Your task to perform on an android device: Find coffee shops on Maps Image 0: 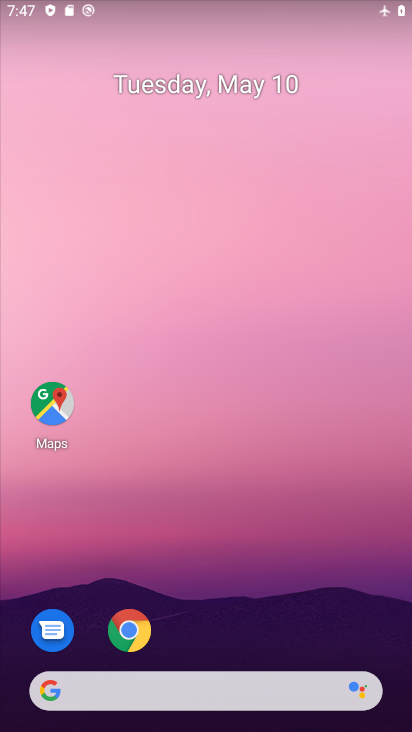
Step 0: click (50, 413)
Your task to perform on an android device: Find coffee shops on Maps Image 1: 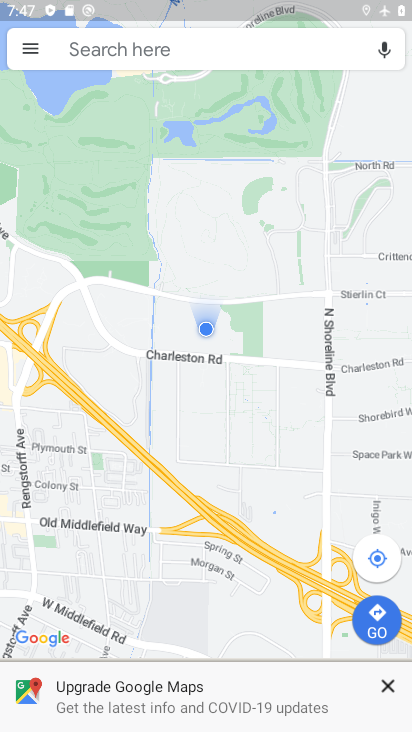
Step 1: click (112, 46)
Your task to perform on an android device: Find coffee shops on Maps Image 2: 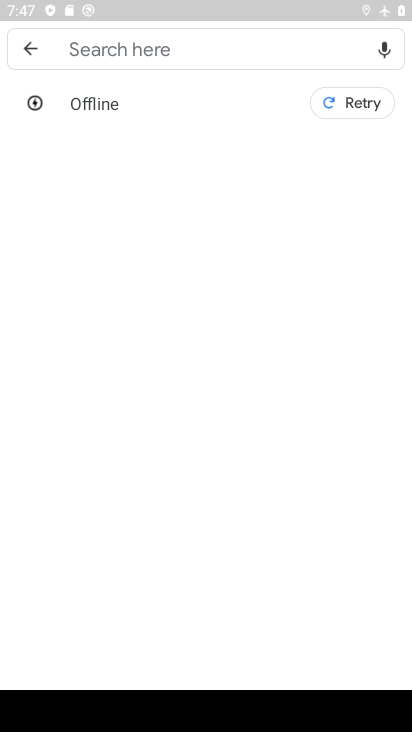
Step 2: task complete